Your task to perform on an android device: Is it going to rain this weekend? Image 0: 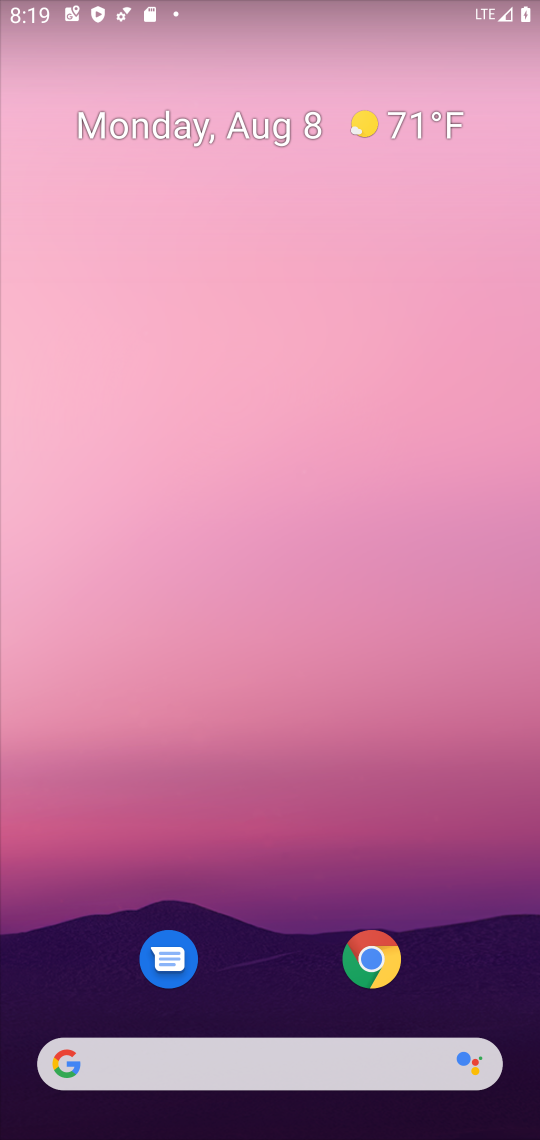
Step 0: drag from (506, 961) to (238, 15)
Your task to perform on an android device: Is it going to rain this weekend? Image 1: 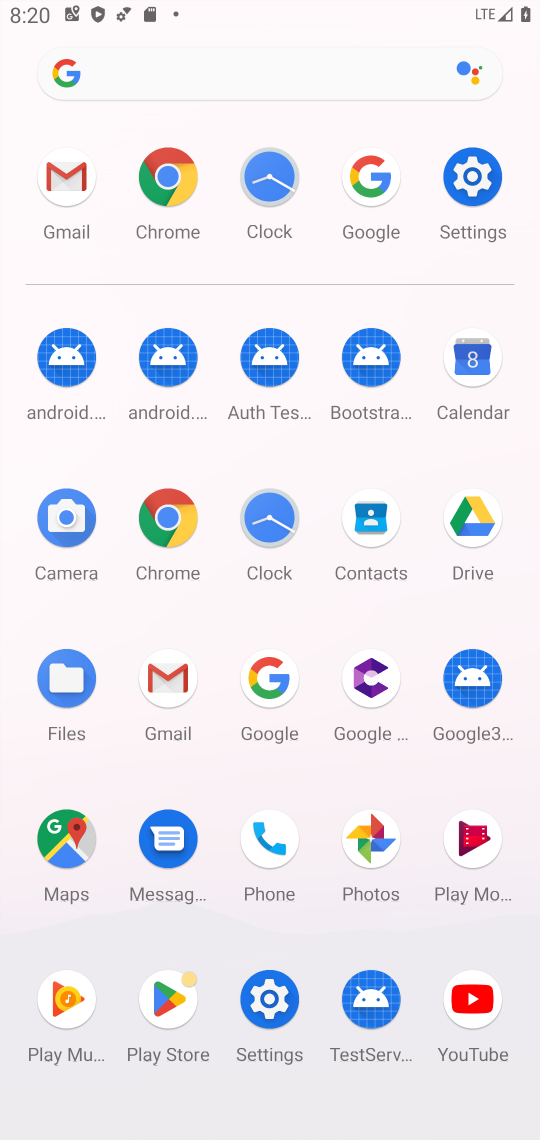
Step 1: click (259, 702)
Your task to perform on an android device: Is it going to rain this weekend? Image 2: 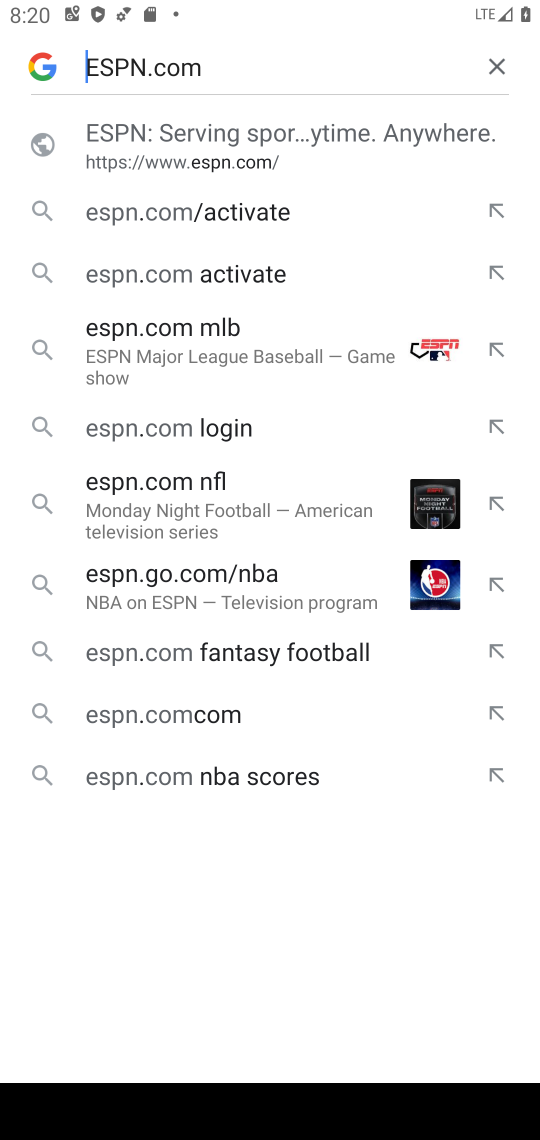
Step 2: click (490, 71)
Your task to perform on an android device: Is it going to rain this weekend? Image 3: 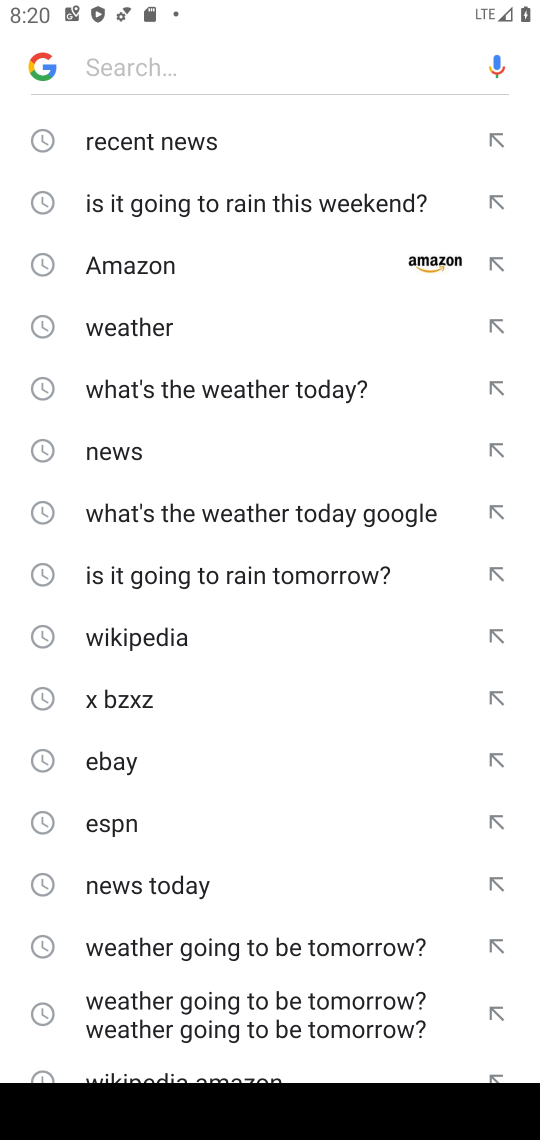
Step 3: click (296, 202)
Your task to perform on an android device: Is it going to rain this weekend? Image 4: 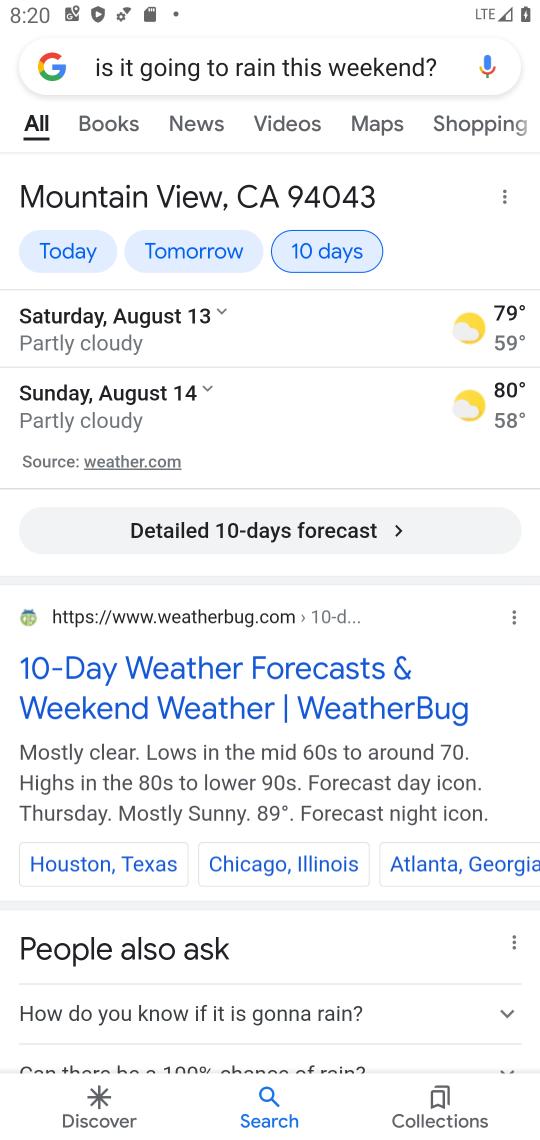
Step 4: task complete